Your task to perform on an android device: turn on javascript in the chrome app Image 0: 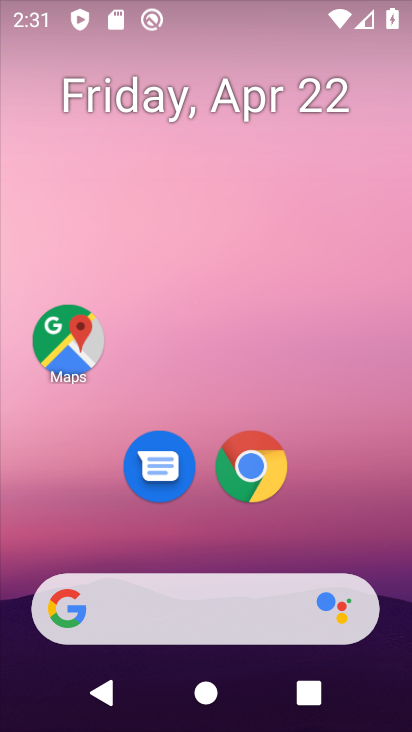
Step 0: drag from (270, 638) to (232, 136)
Your task to perform on an android device: turn on javascript in the chrome app Image 1: 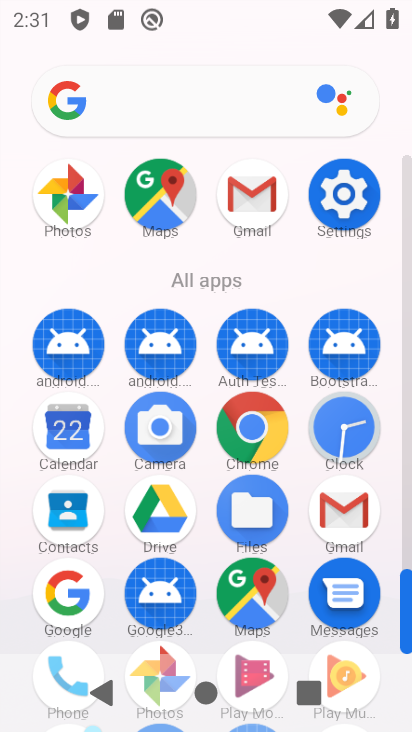
Step 1: click (246, 437)
Your task to perform on an android device: turn on javascript in the chrome app Image 2: 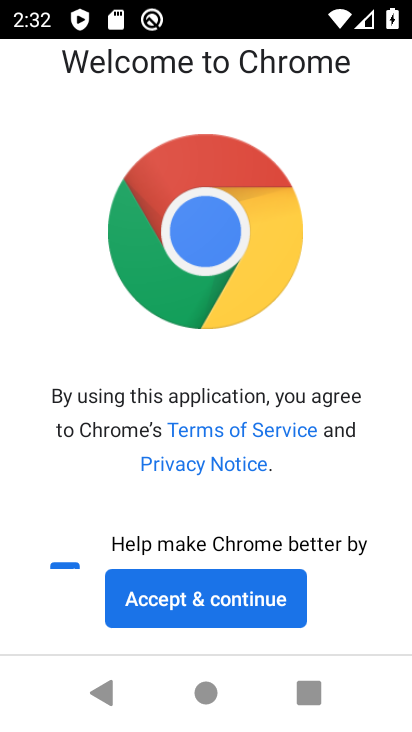
Step 2: click (213, 590)
Your task to perform on an android device: turn on javascript in the chrome app Image 3: 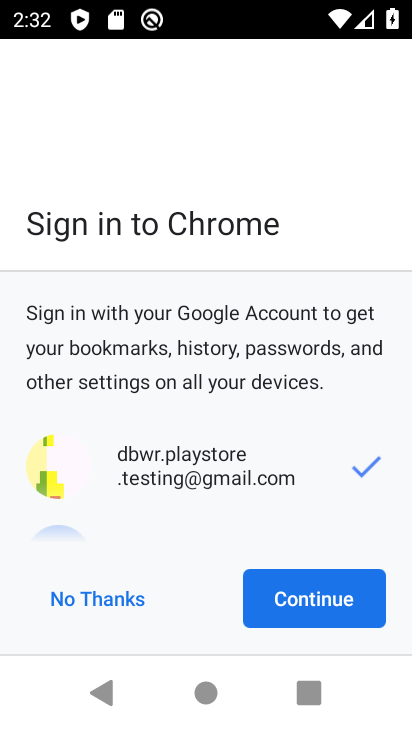
Step 3: click (333, 612)
Your task to perform on an android device: turn on javascript in the chrome app Image 4: 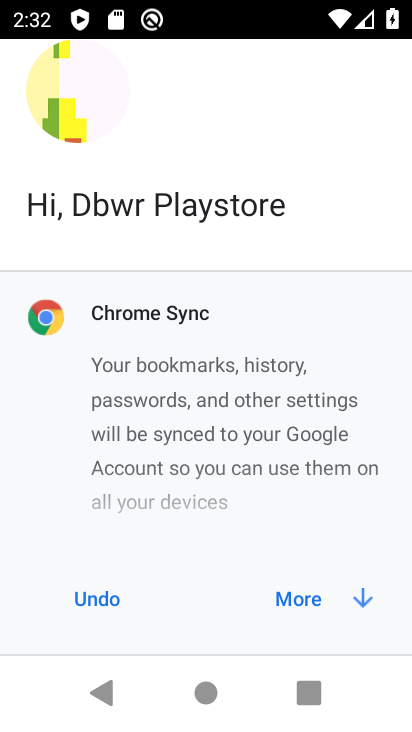
Step 4: click (303, 594)
Your task to perform on an android device: turn on javascript in the chrome app Image 5: 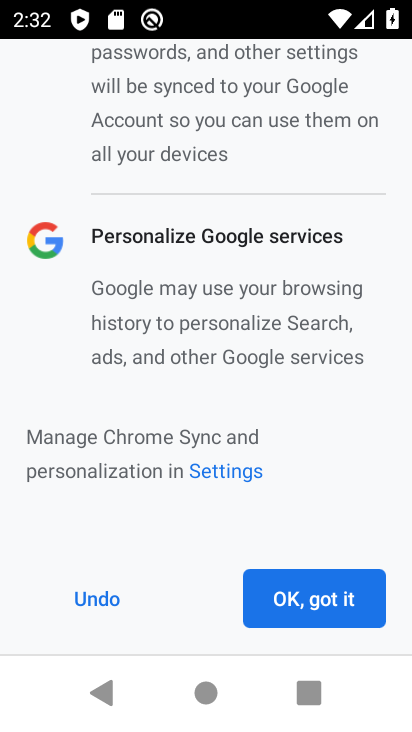
Step 5: click (327, 597)
Your task to perform on an android device: turn on javascript in the chrome app Image 6: 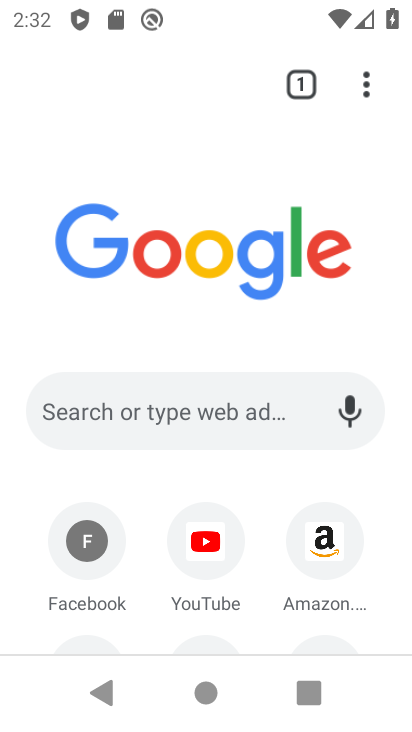
Step 6: click (368, 83)
Your task to perform on an android device: turn on javascript in the chrome app Image 7: 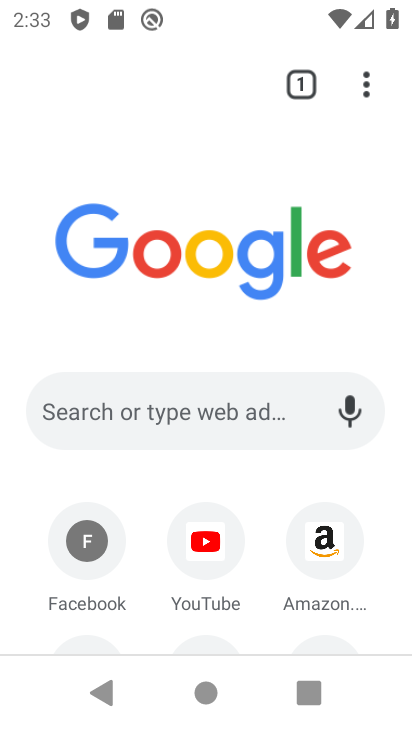
Step 7: click (362, 84)
Your task to perform on an android device: turn on javascript in the chrome app Image 8: 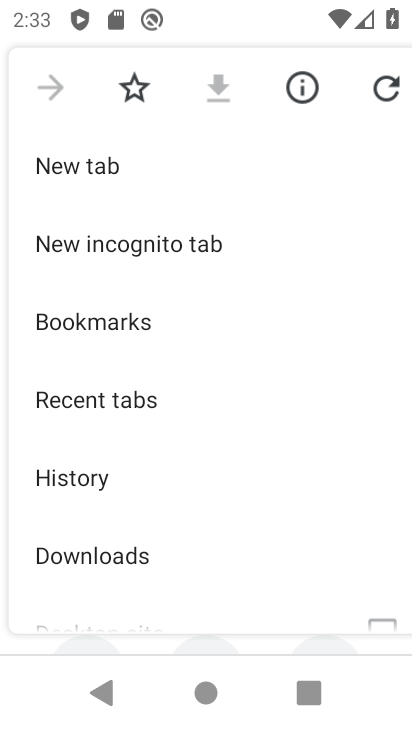
Step 8: drag from (305, 578) to (242, 134)
Your task to perform on an android device: turn on javascript in the chrome app Image 9: 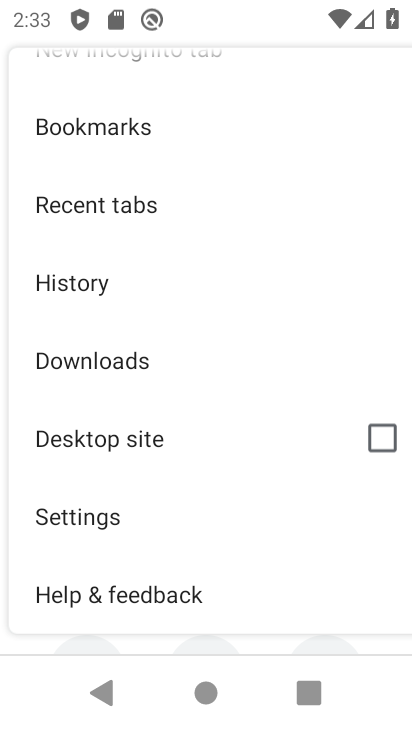
Step 9: click (128, 524)
Your task to perform on an android device: turn on javascript in the chrome app Image 10: 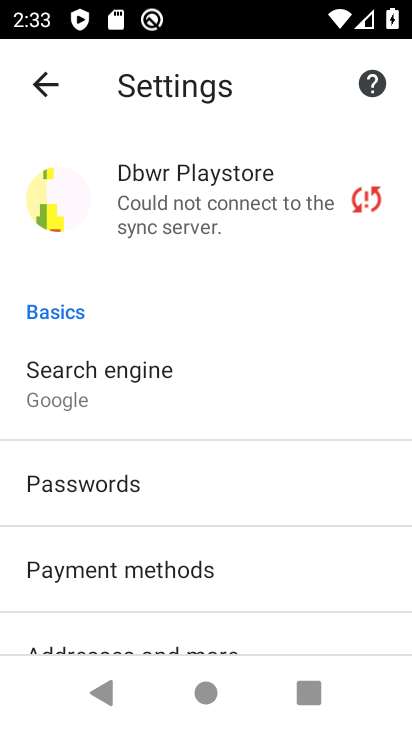
Step 10: drag from (285, 582) to (241, 45)
Your task to perform on an android device: turn on javascript in the chrome app Image 11: 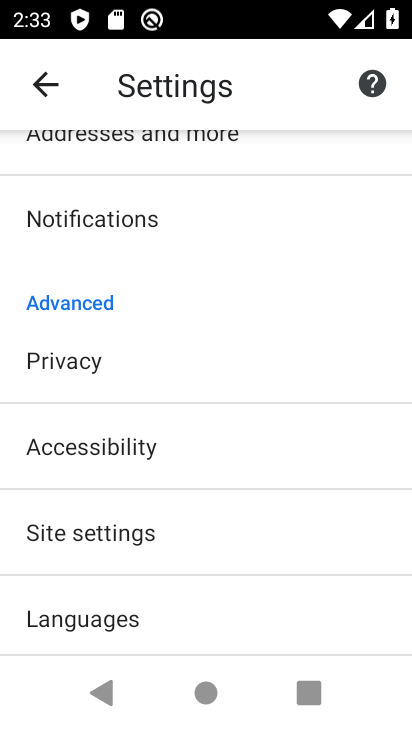
Step 11: click (136, 535)
Your task to perform on an android device: turn on javascript in the chrome app Image 12: 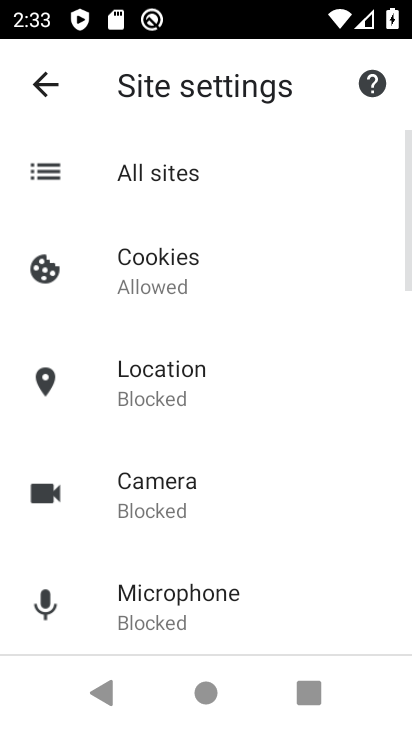
Step 12: drag from (308, 563) to (270, 84)
Your task to perform on an android device: turn on javascript in the chrome app Image 13: 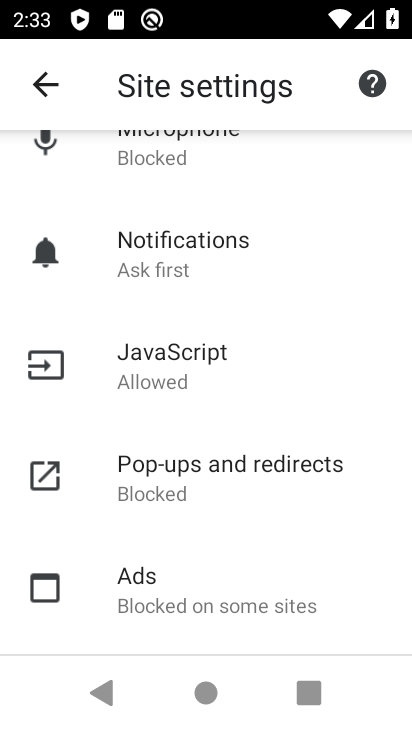
Step 13: click (220, 369)
Your task to perform on an android device: turn on javascript in the chrome app Image 14: 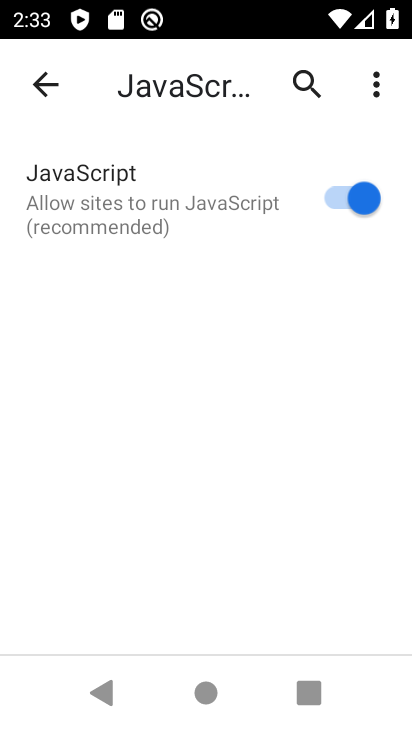
Step 14: task complete